Your task to perform on an android device: install app "Gmail" Image 0: 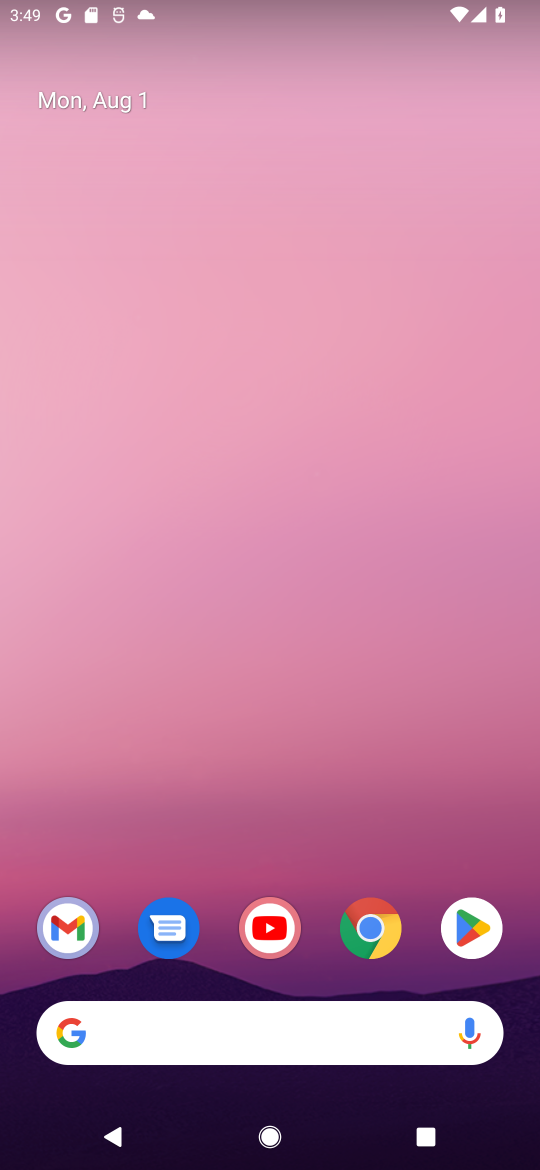
Step 0: click (462, 924)
Your task to perform on an android device: install app "Gmail" Image 1: 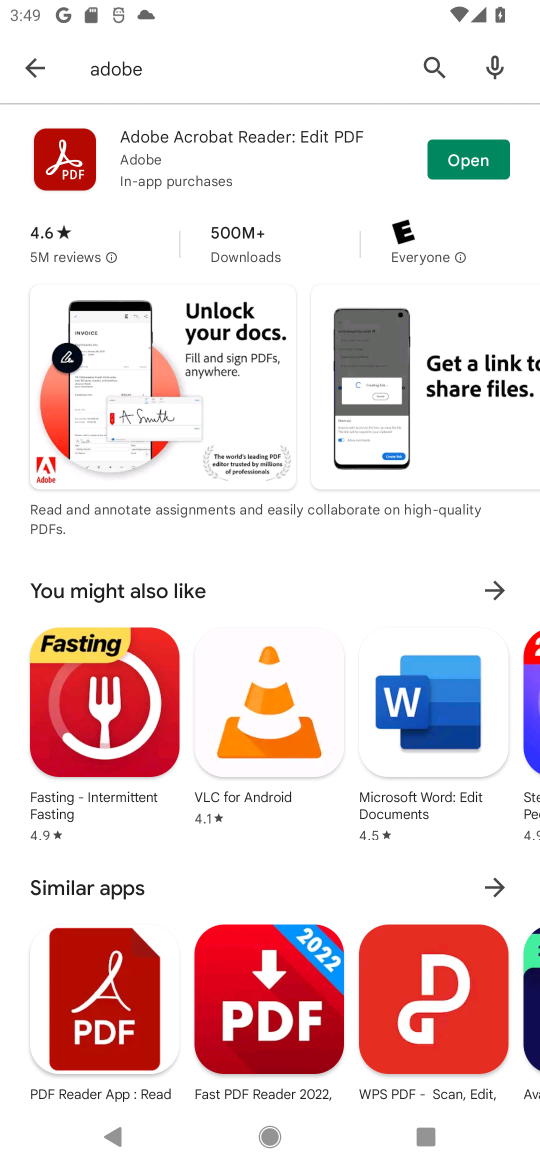
Step 1: click (428, 52)
Your task to perform on an android device: install app "Gmail" Image 2: 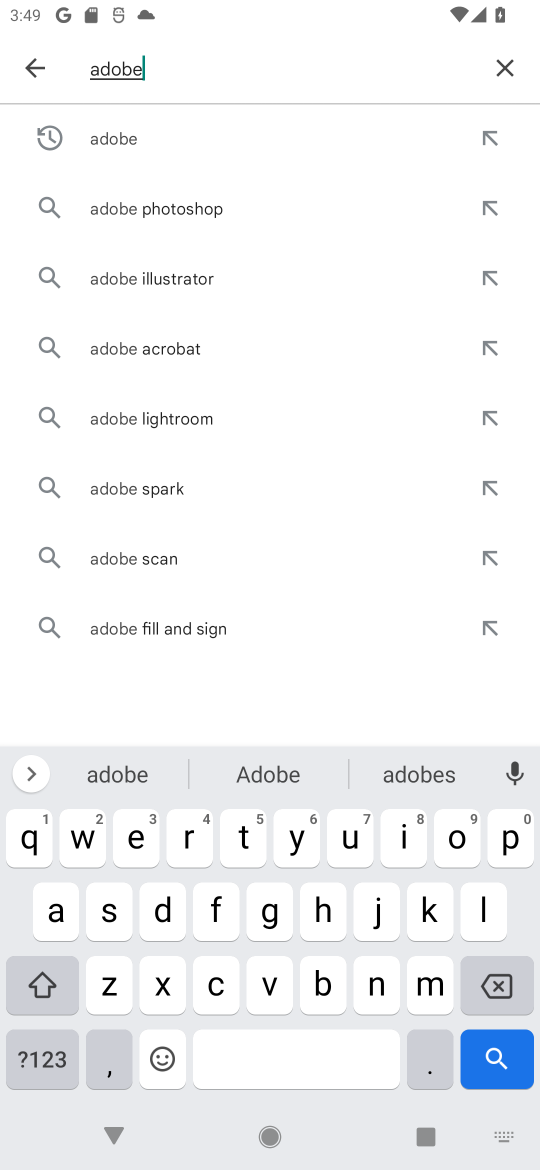
Step 2: click (507, 64)
Your task to perform on an android device: install app "Gmail" Image 3: 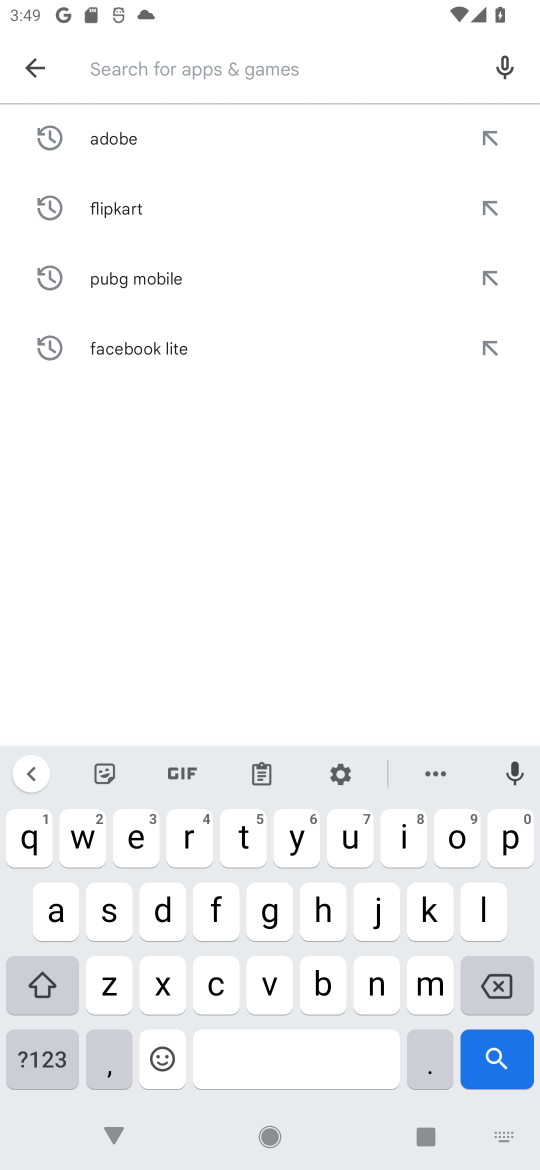
Step 3: click (276, 913)
Your task to perform on an android device: install app "Gmail" Image 4: 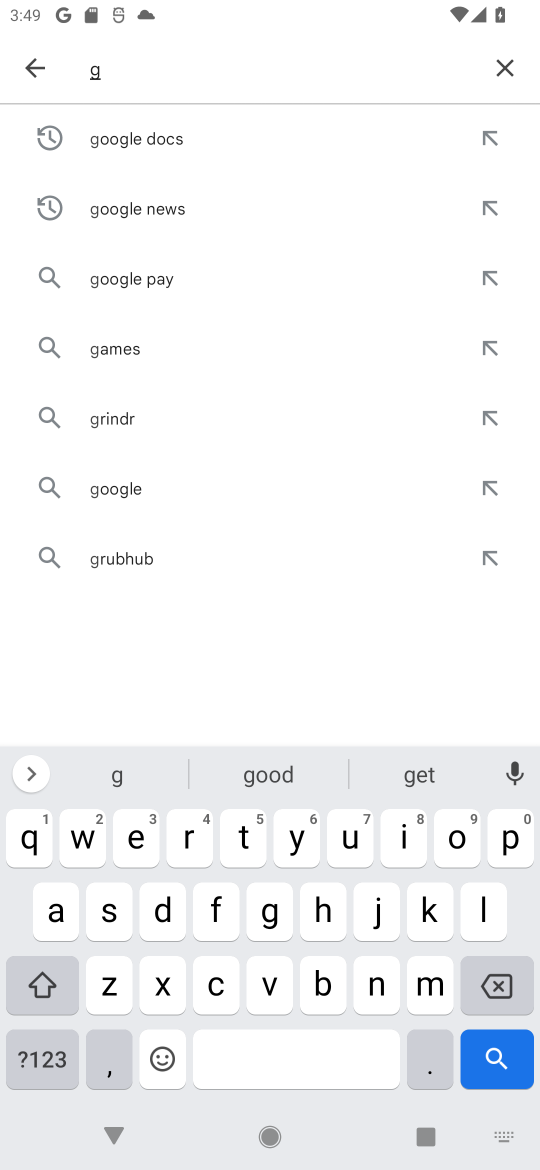
Step 4: click (428, 982)
Your task to perform on an android device: install app "Gmail" Image 5: 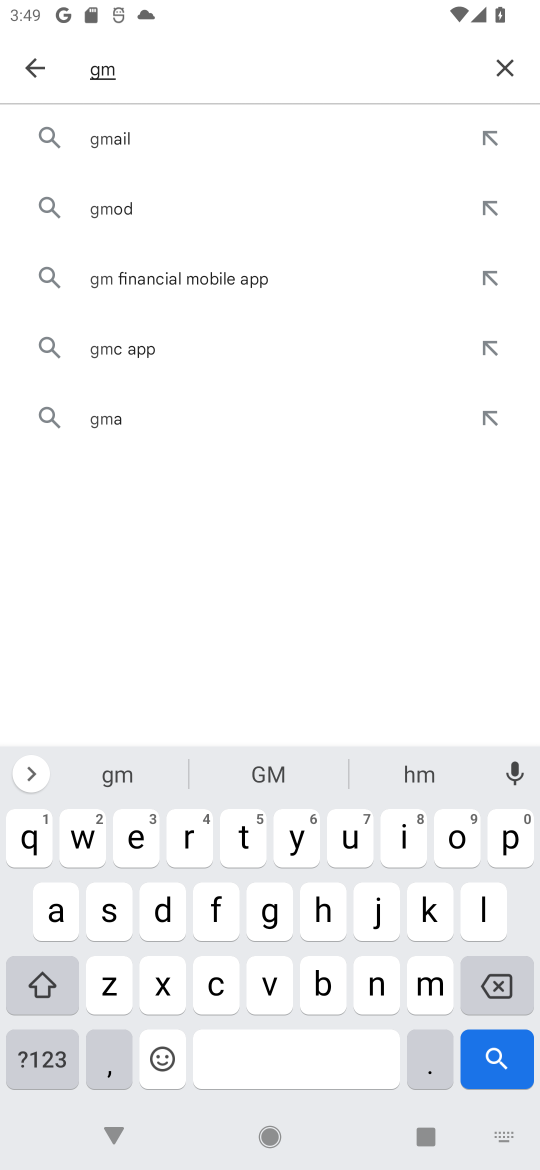
Step 5: click (45, 901)
Your task to perform on an android device: install app "Gmail" Image 6: 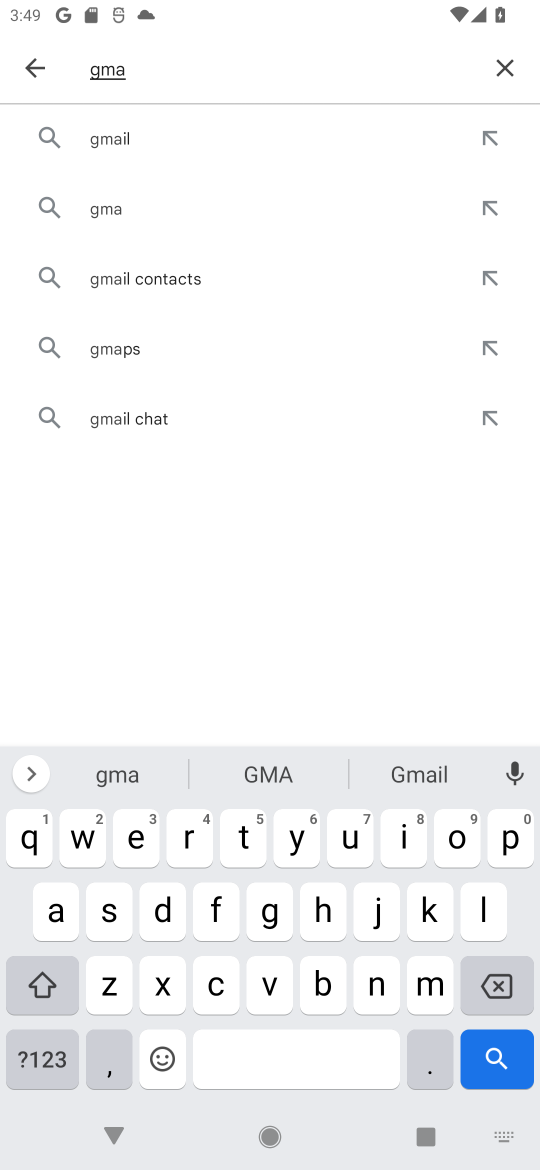
Step 6: click (119, 133)
Your task to perform on an android device: install app "Gmail" Image 7: 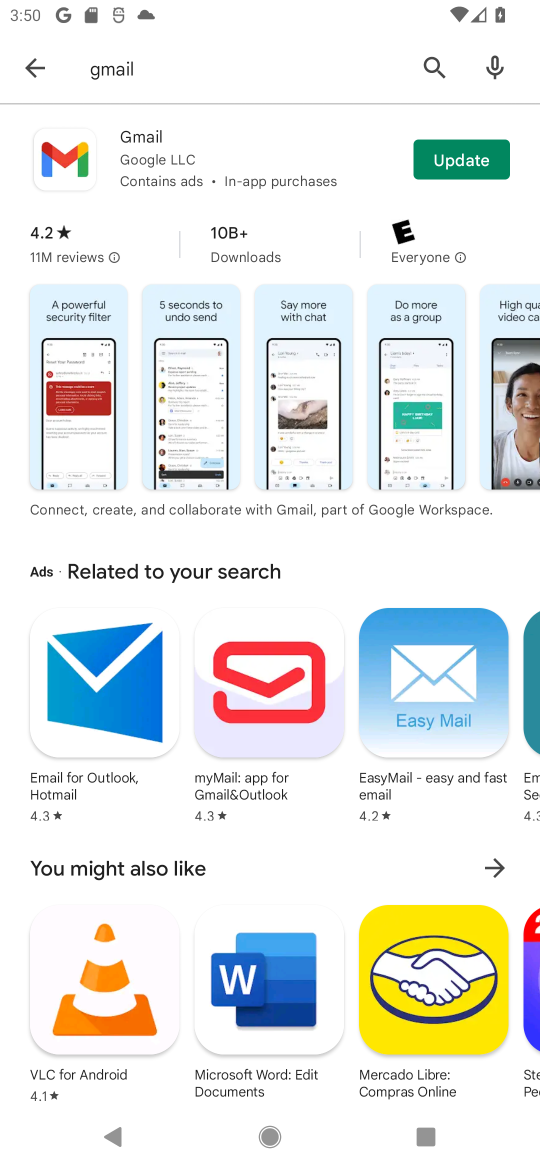
Step 7: click (438, 151)
Your task to perform on an android device: install app "Gmail" Image 8: 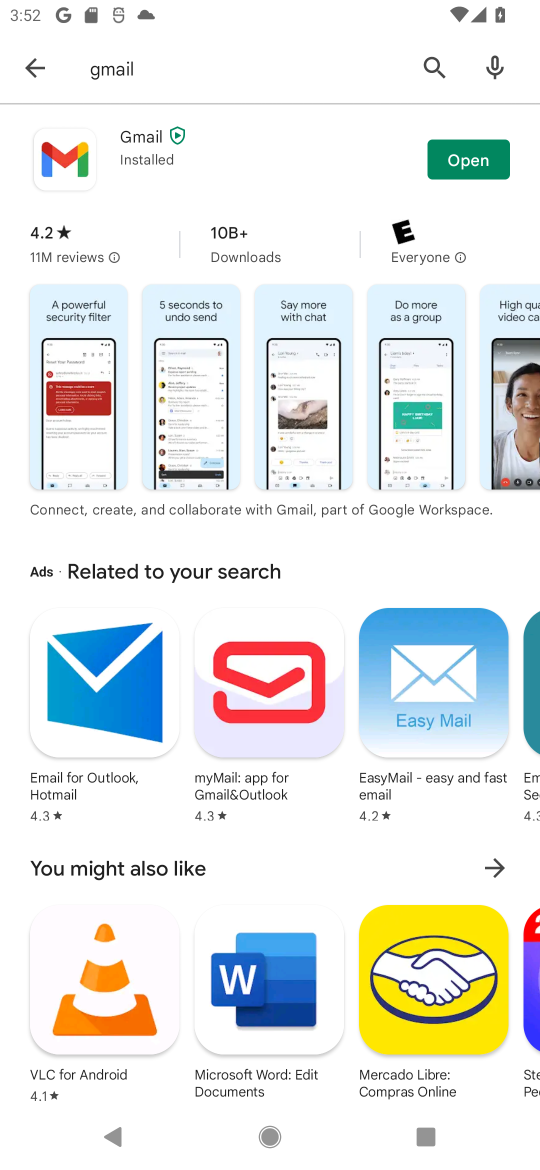
Step 8: task complete